Your task to perform on an android device: Find coffee shops on Maps Image 0: 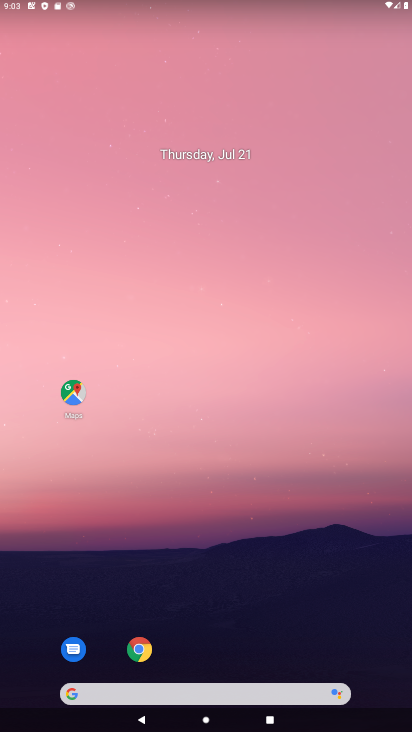
Step 0: click (68, 387)
Your task to perform on an android device: Find coffee shops on Maps Image 1: 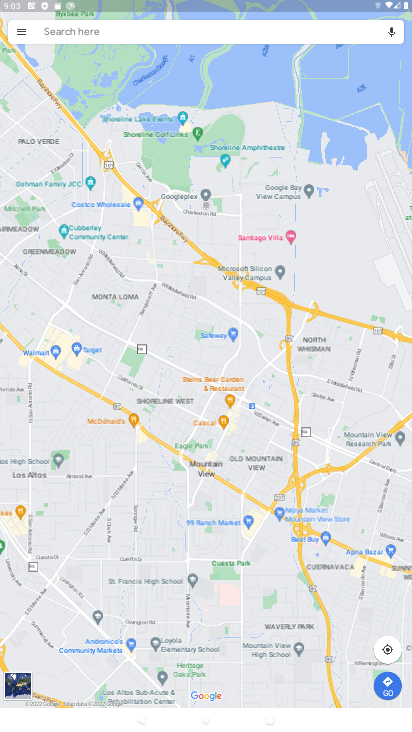
Step 1: click (205, 27)
Your task to perform on an android device: Find coffee shops on Maps Image 2: 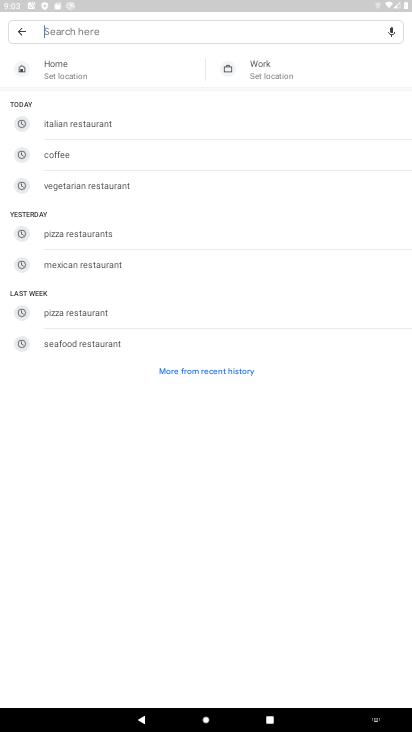
Step 2: type "coffee shops"
Your task to perform on an android device: Find coffee shops on Maps Image 3: 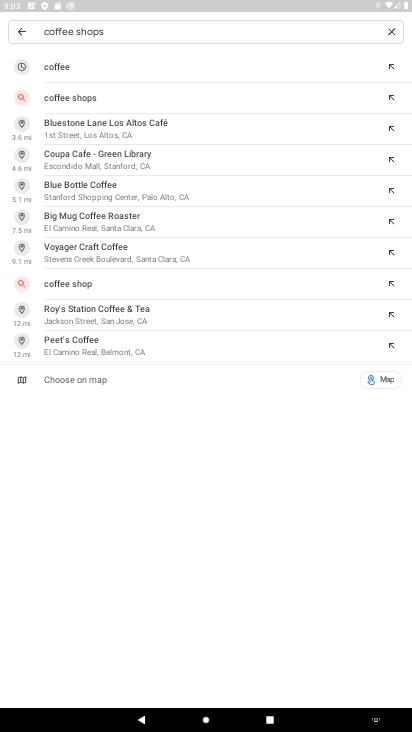
Step 3: click (111, 91)
Your task to perform on an android device: Find coffee shops on Maps Image 4: 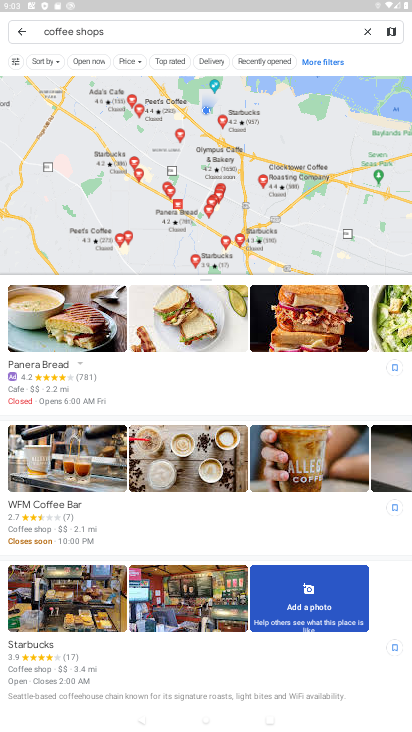
Step 4: task complete